Your task to perform on an android device: check out phone information Image 0: 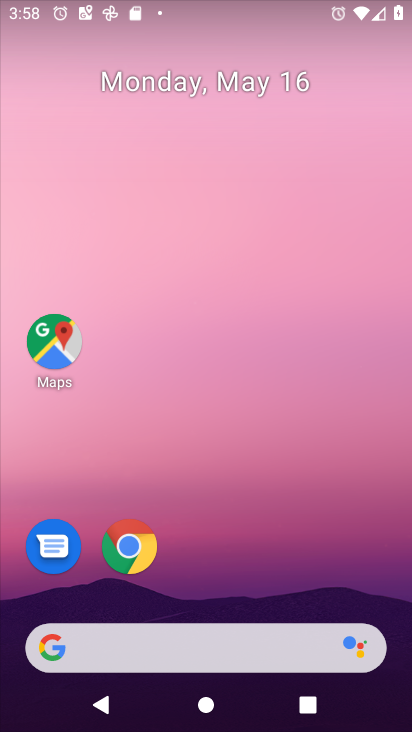
Step 0: drag from (361, 587) to (380, 155)
Your task to perform on an android device: check out phone information Image 1: 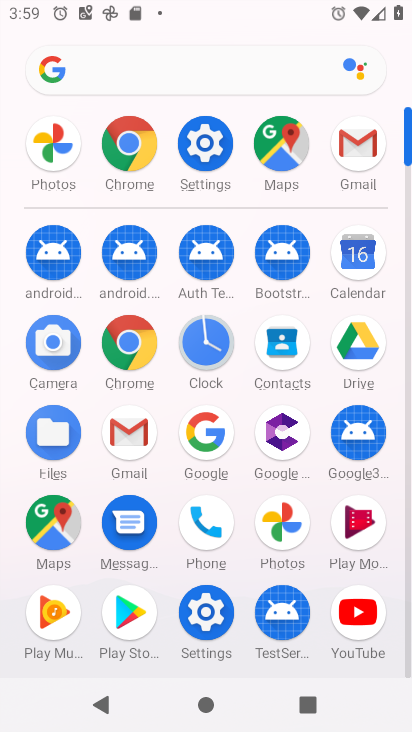
Step 1: click (212, 538)
Your task to perform on an android device: check out phone information Image 2: 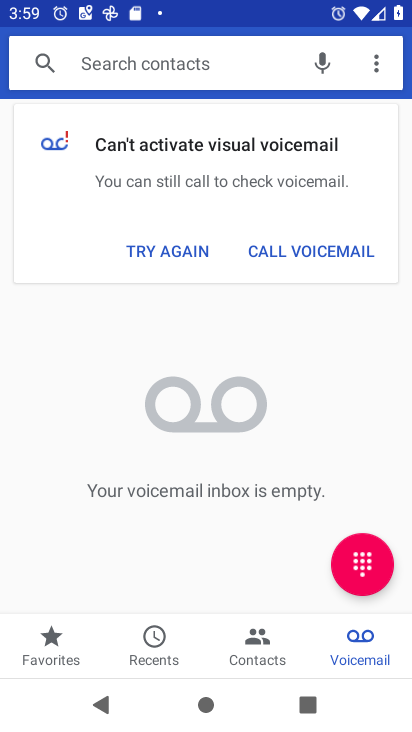
Step 2: click (151, 654)
Your task to perform on an android device: check out phone information Image 3: 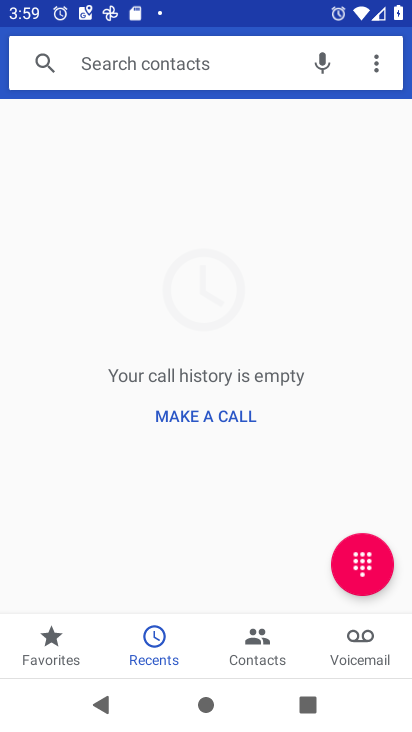
Step 3: task complete